Your task to perform on an android device: turn off location history Image 0: 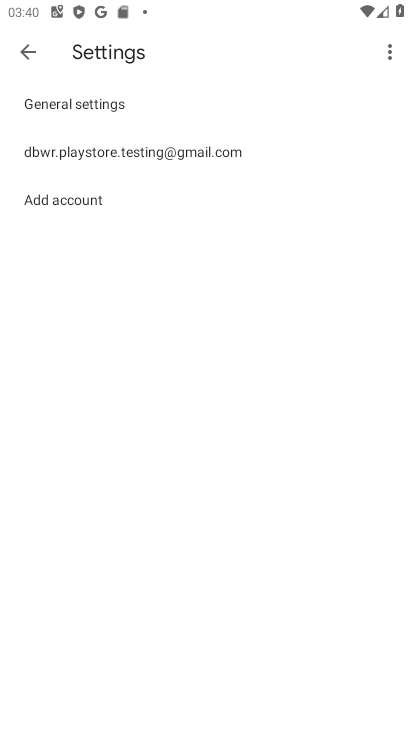
Step 0: press home button
Your task to perform on an android device: turn off location history Image 1: 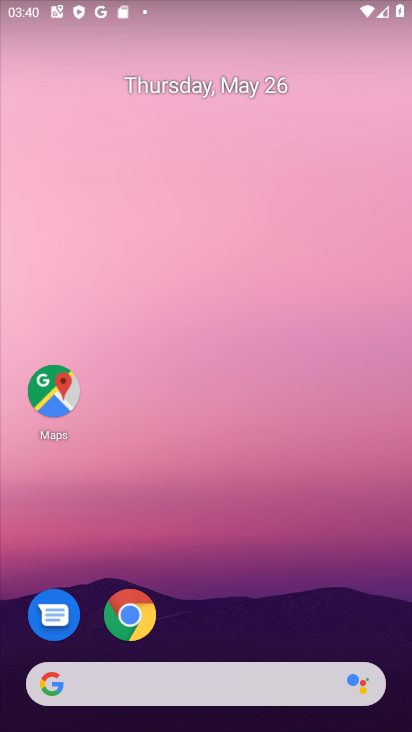
Step 1: drag from (229, 614) to (222, 131)
Your task to perform on an android device: turn off location history Image 2: 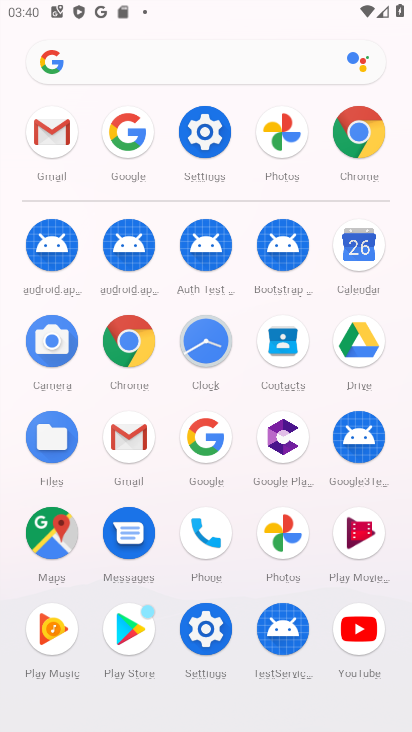
Step 2: click (207, 132)
Your task to perform on an android device: turn off location history Image 3: 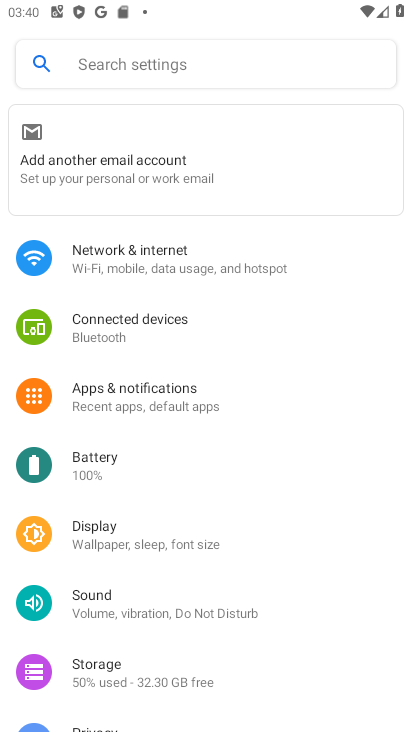
Step 3: drag from (137, 648) to (176, 418)
Your task to perform on an android device: turn off location history Image 4: 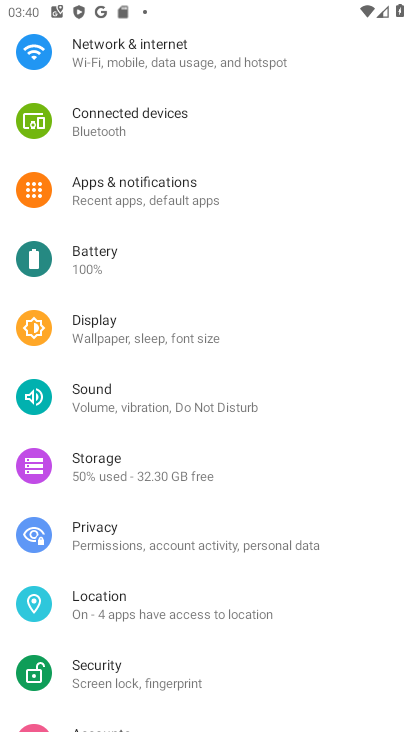
Step 4: click (108, 606)
Your task to perform on an android device: turn off location history Image 5: 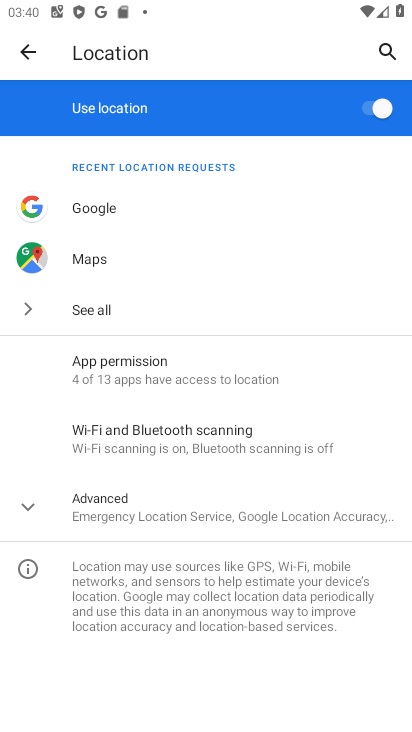
Step 5: click (116, 508)
Your task to perform on an android device: turn off location history Image 6: 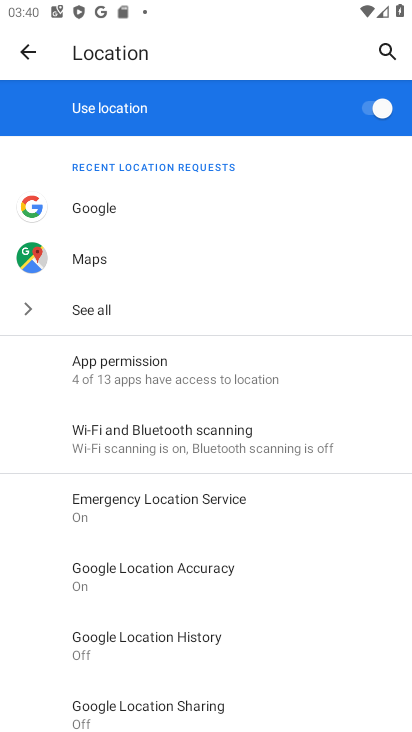
Step 6: click (169, 648)
Your task to perform on an android device: turn off location history Image 7: 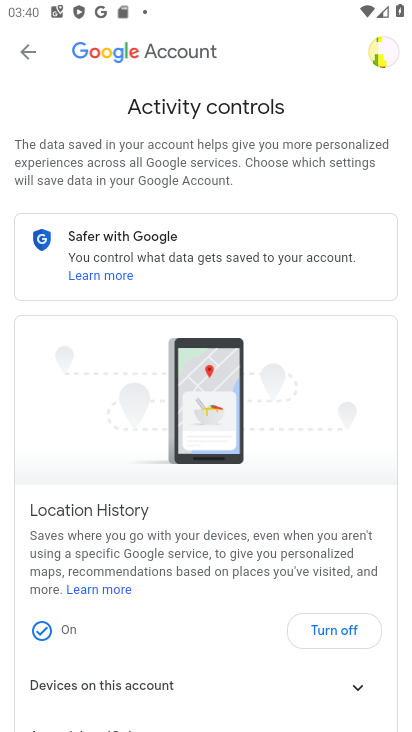
Step 7: drag from (233, 620) to (333, 351)
Your task to perform on an android device: turn off location history Image 8: 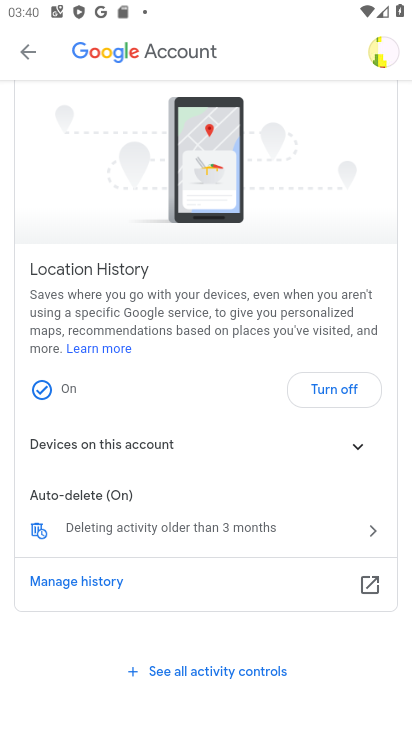
Step 8: click (332, 394)
Your task to perform on an android device: turn off location history Image 9: 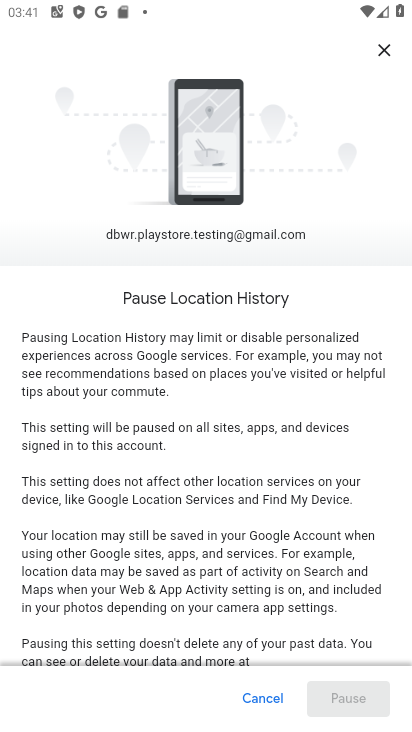
Step 9: drag from (214, 561) to (242, 222)
Your task to perform on an android device: turn off location history Image 10: 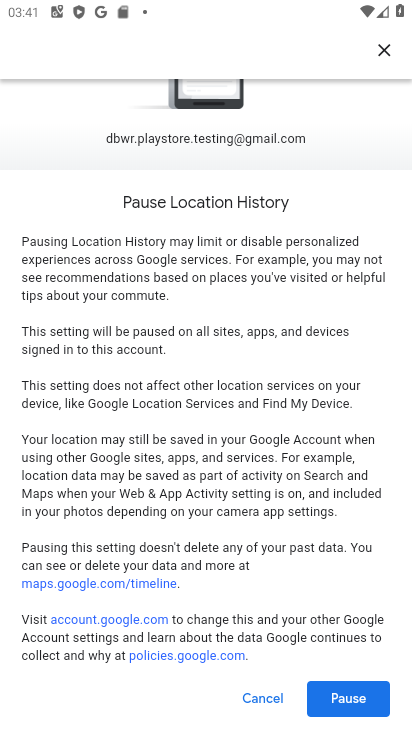
Step 10: click (349, 708)
Your task to perform on an android device: turn off location history Image 11: 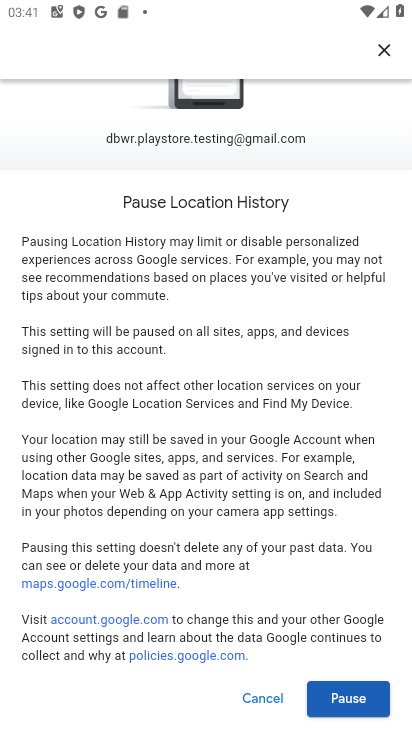
Step 11: click (332, 701)
Your task to perform on an android device: turn off location history Image 12: 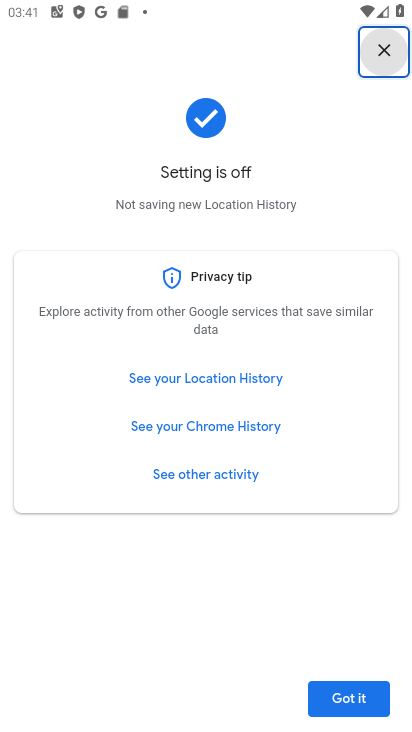
Step 12: click (332, 701)
Your task to perform on an android device: turn off location history Image 13: 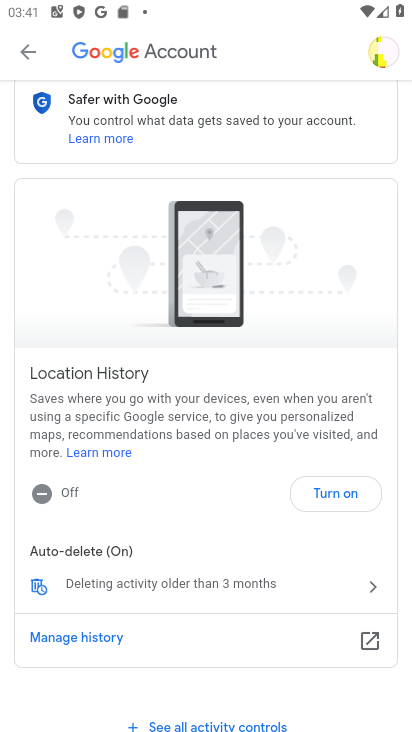
Step 13: task complete